Your task to perform on an android device: turn on airplane mode Image 0: 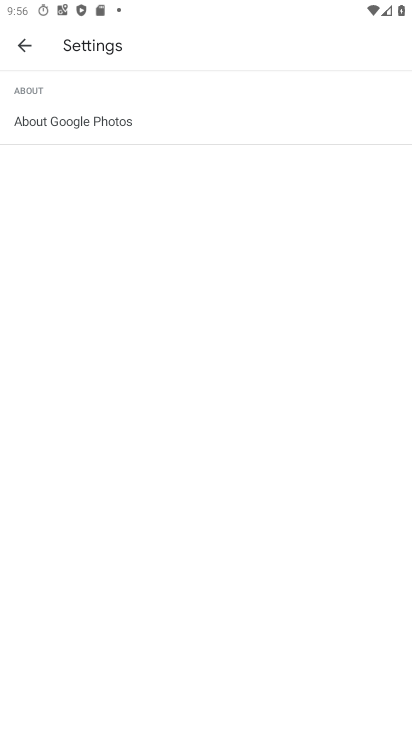
Step 0: press home button
Your task to perform on an android device: turn on airplane mode Image 1: 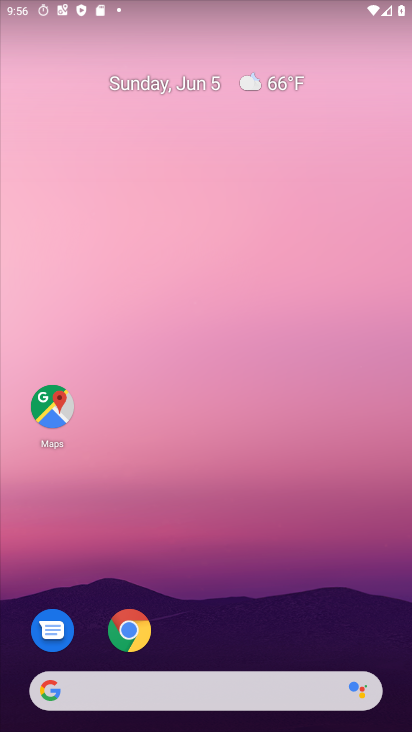
Step 1: drag from (233, 713) to (261, 61)
Your task to perform on an android device: turn on airplane mode Image 2: 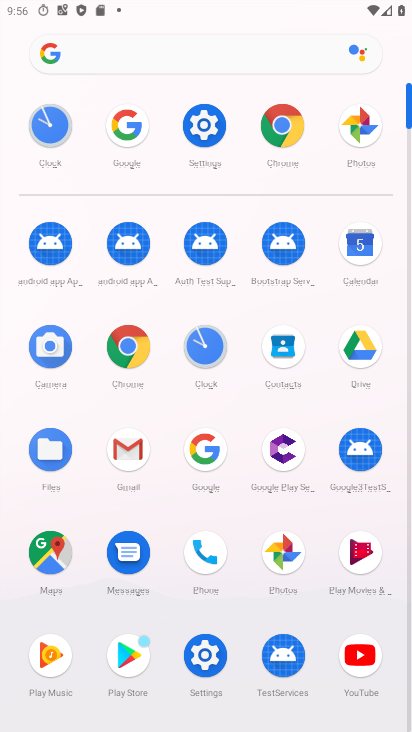
Step 2: click (206, 132)
Your task to perform on an android device: turn on airplane mode Image 3: 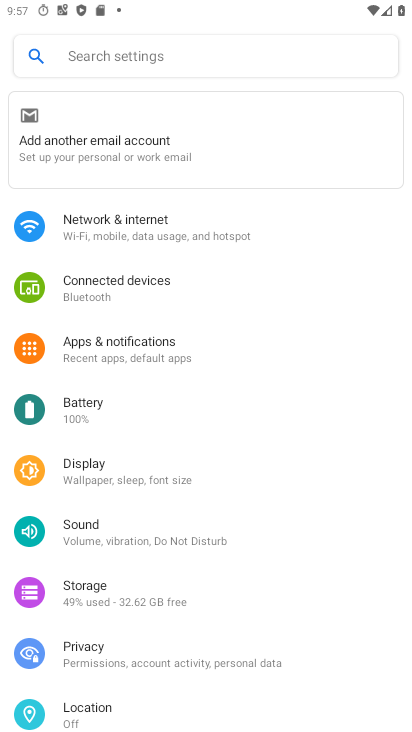
Step 3: click (117, 226)
Your task to perform on an android device: turn on airplane mode Image 4: 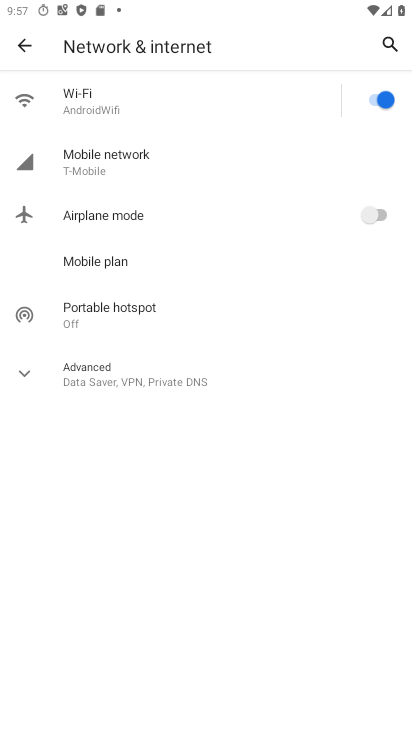
Step 4: click (382, 215)
Your task to perform on an android device: turn on airplane mode Image 5: 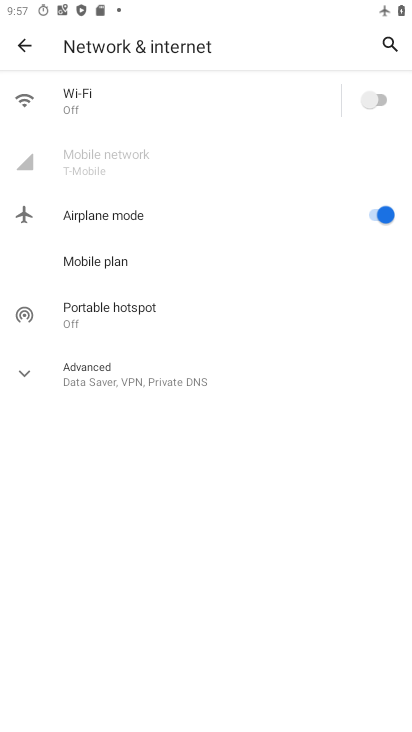
Step 5: task complete